Your task to perform on an android device: visit the assistant section in the google photos Image 0: 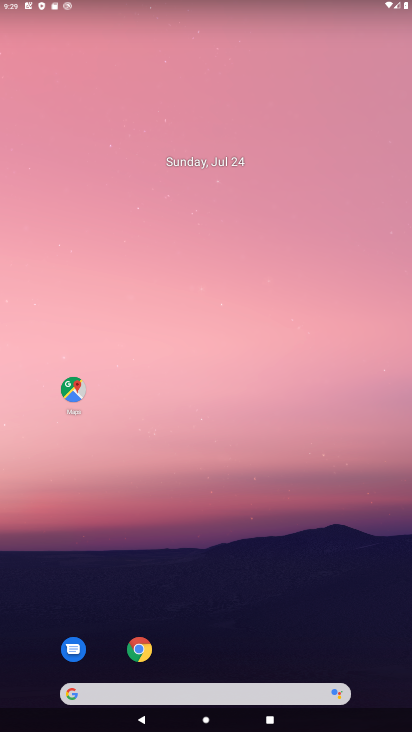
Step 0: drag from (169, 576) to (225, 49)
Your task to perform on an android device: visit the assistant section in the google photos Image 1: 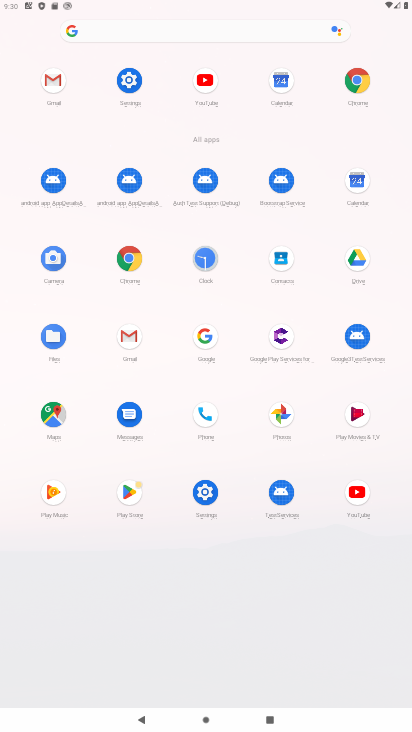
Step 1: click (287, 419)
Your task to perform on an android device: visit the assistant section in the google photos Image 2: 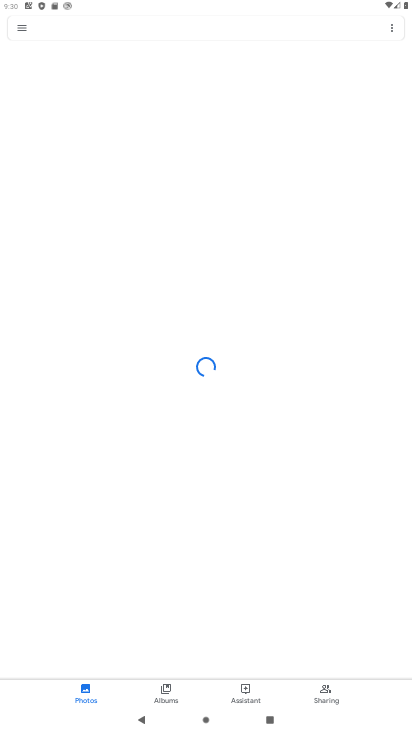
Step 2: click (247, 696)
Your task to perform on an android device: visit the assistant section in the google photos Image 3: 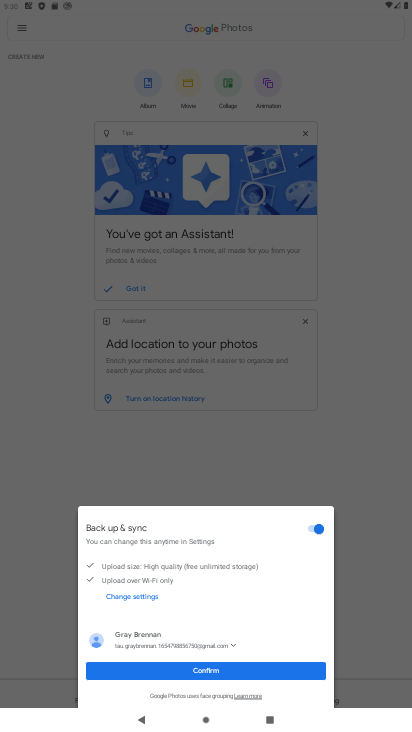
Step 3: click (198, 667)
Your task to perform on an android device: visit the assistant section in the google photos Image 4: 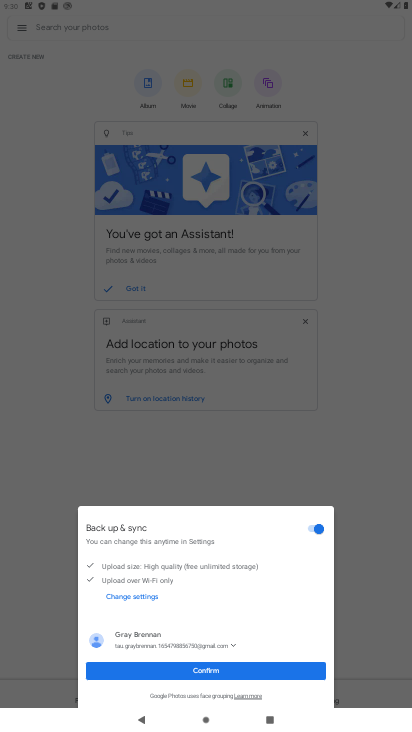
Step 4: click (206, 668)
Your task to perform on an android device: visit the assistant section in the google photos Image 5: 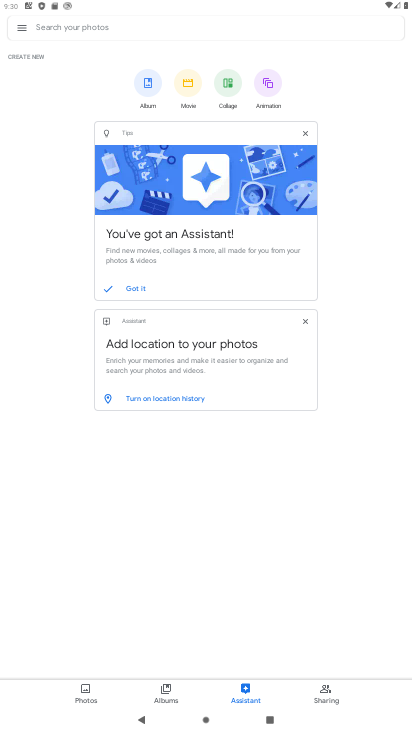
Step 5: task complete